Your task to perform on an android device: turn off notifications in google photos Image 0: 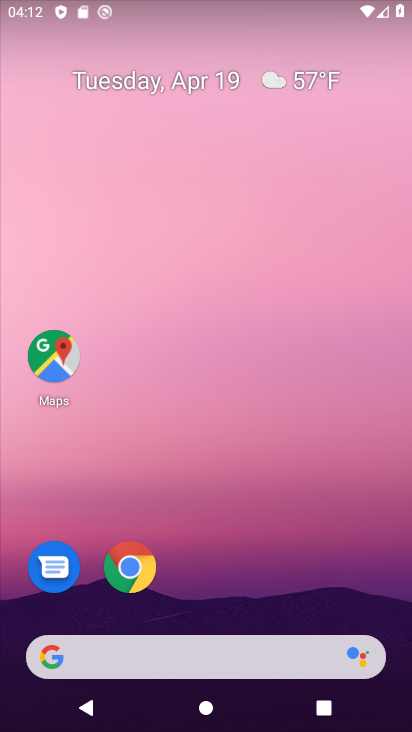
Step 0: drag from (369, 568) to (359, 199)
Your task to perform on an android device: turn off notifications in google photos Image 1: 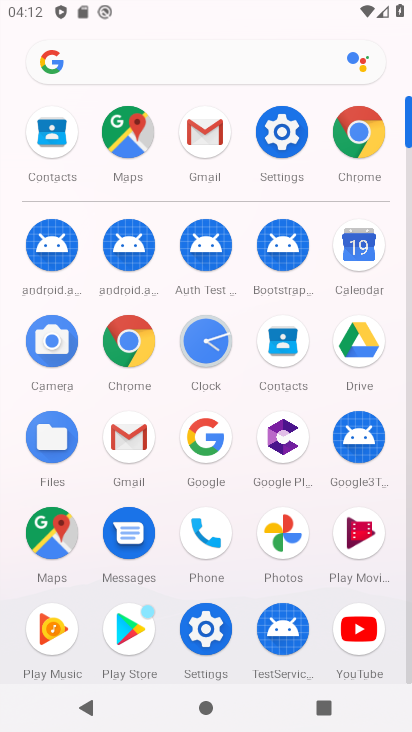
Step 1: click (286, 536)
Your task to perform on an android device: turn off notifications in google photos Image 2: 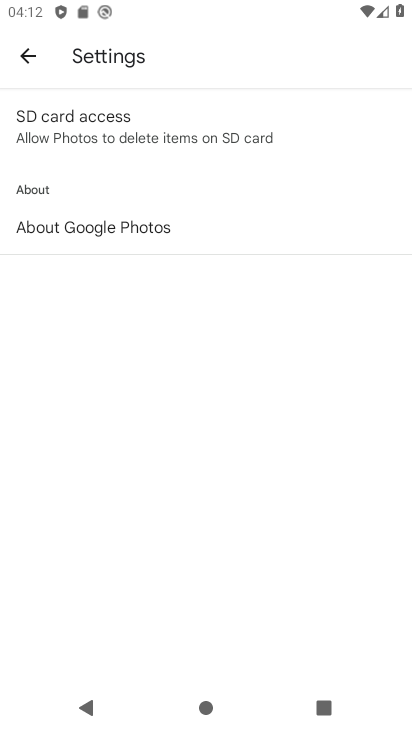
Step 2: click (24, 61)
Your task to perform on an android device: turn off notifications in google photos Image 3: 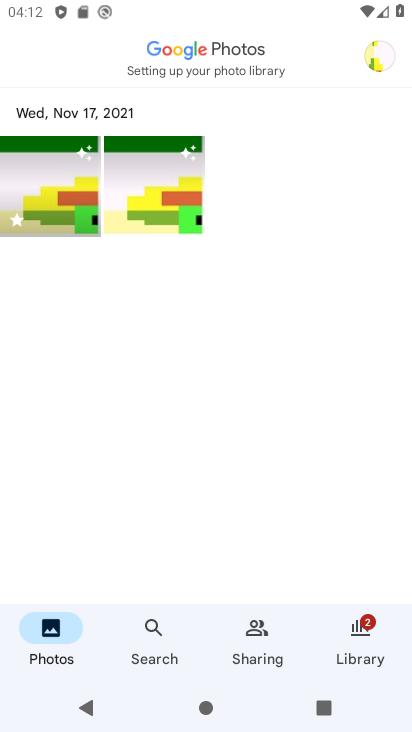
Step 3: click (375, 59)
Your task to perform on an android device: turn off notifications in google photos Image 4: 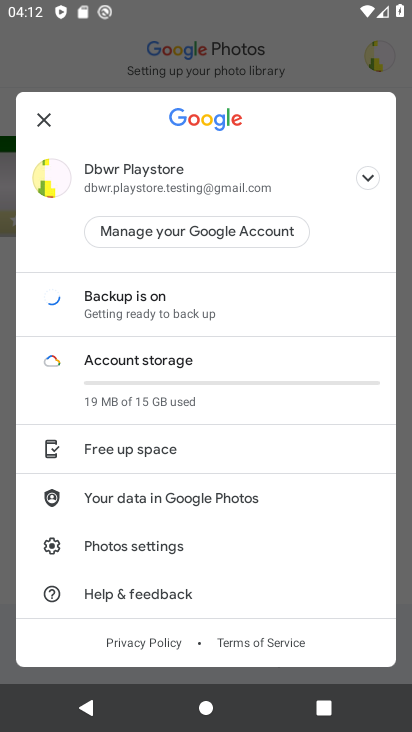
Step 4: drag from (328, 517) to (344, 352)
Your task to perform on an android device: turn off notifications in google photos Image 5: 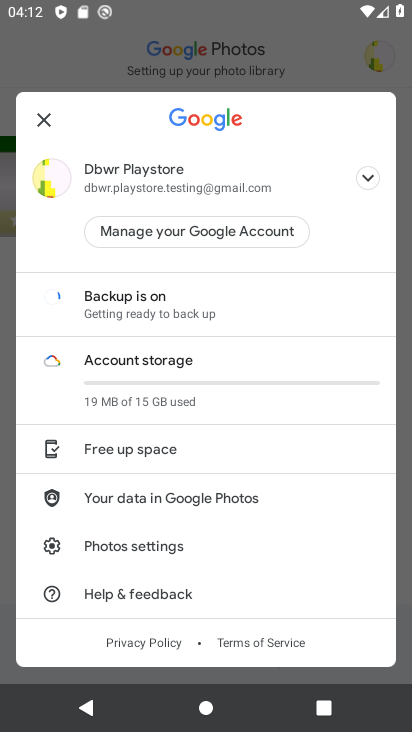
Step 5: click (186, 552)
Your task to perform on an android device: turn off notifications in google photos Image 6: 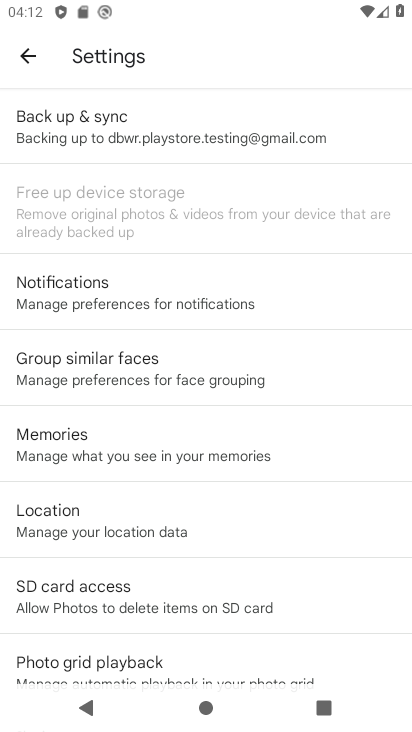
Step 6: drag from (337, 583) to (346, 446)
Your task to perform on an android device: turn off notifications in google photos Image 7: 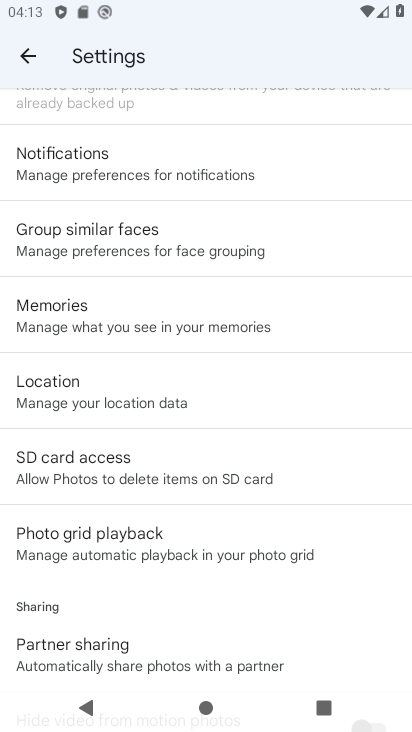
Step 7: drag from (341, 604) to (351, 436)
Your task to perform on an android device: turn off notifications in google photos Image 8: 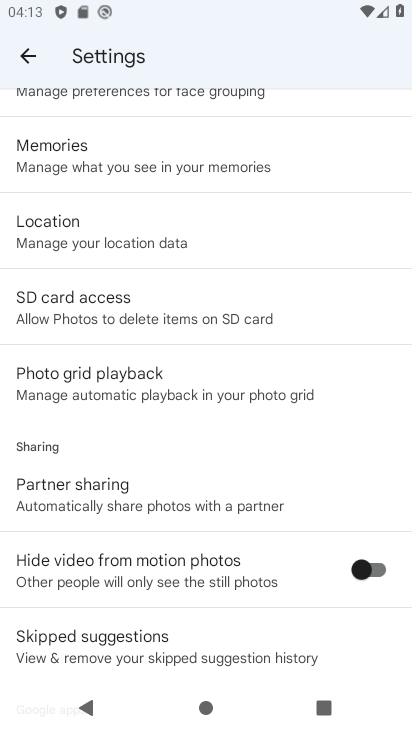
Step 8: drag from (320, 605) to (325, 490)
Your task to perform on an android device: turn off notifications in google photos Image 9: 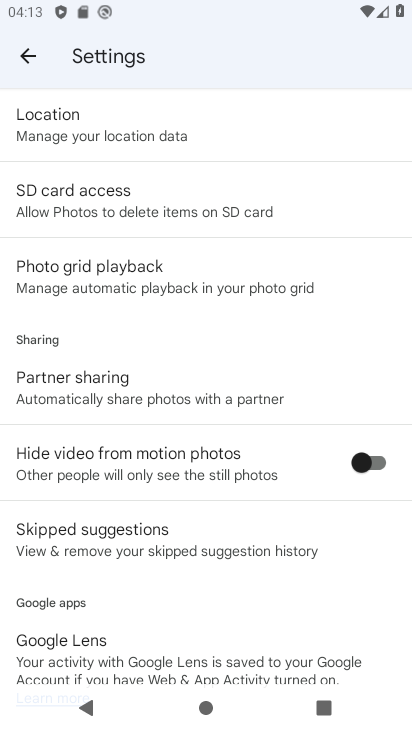
Step 9: drag from (323, 596) to (303, 471)
Your task to perform on an android device: turn off notifications in google photos Image 10: 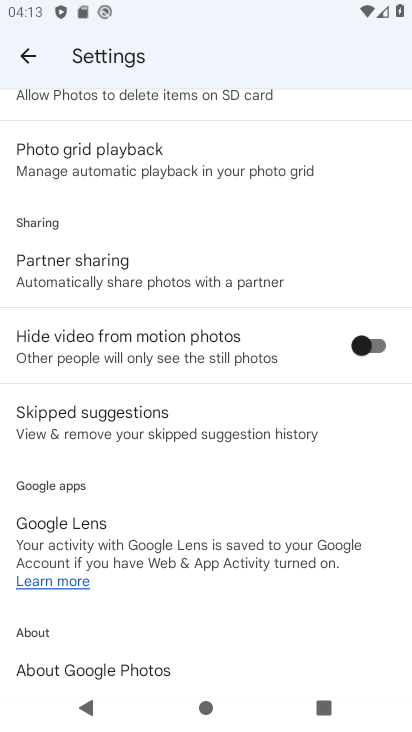
Step 10: drag from (316, 342) to (303, 483)
Your task to perform on an android device: turn off notifications in google photos Image 11: 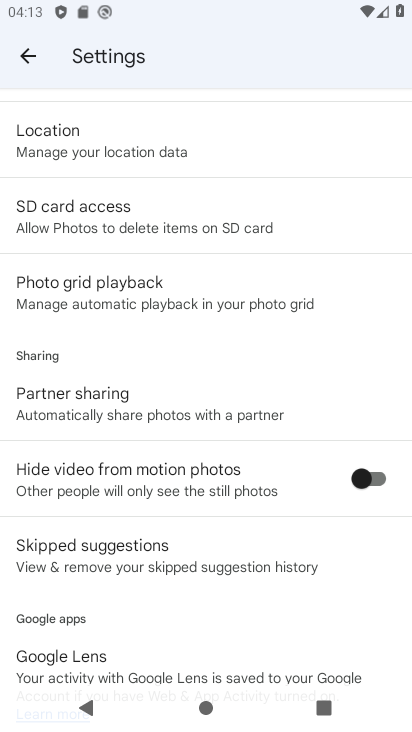
Step 11: drag from (310, 365) to (301, 499)
Your task to perform on an android device: turn off notifications in google photos Image 12: 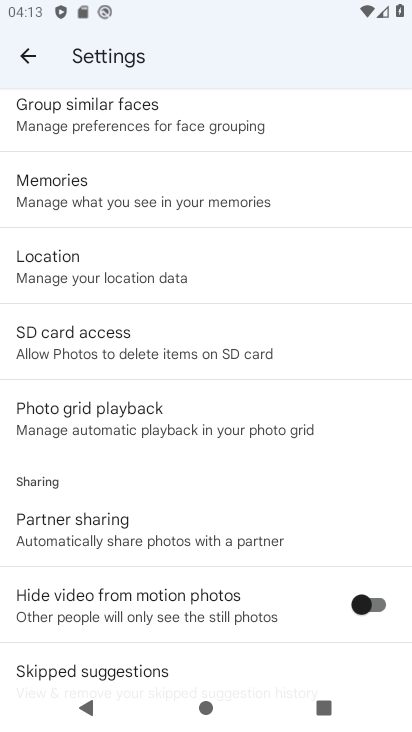
Step 12: drag from (318, 298) to (320, 520)
Your task to perform on an android device: turn off notifications in google photos Image 13: 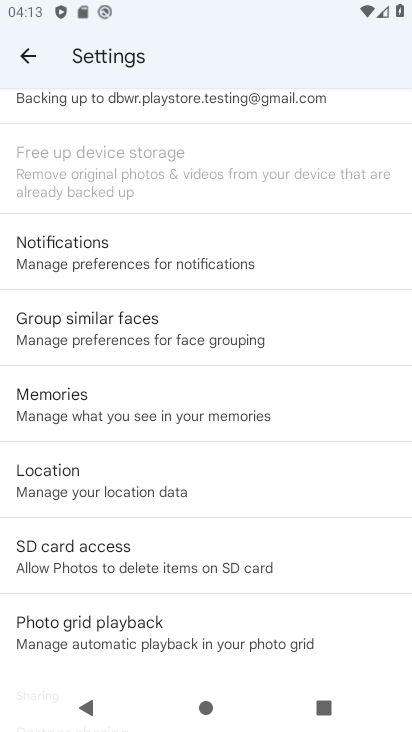
Step 13: click (175, 257)
Your task to perform on an android device: turn off notifications in google photos Image 14: 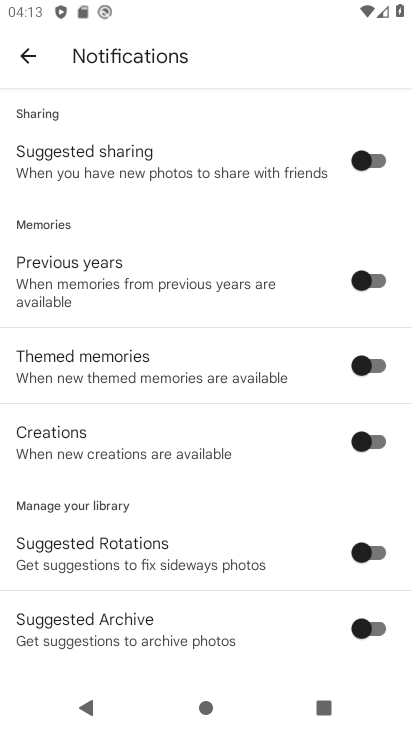
Step 14: drag from (291, 597) to (298, 409)
Your task to perform on an android device: turn off notifications in google photos Image 15: 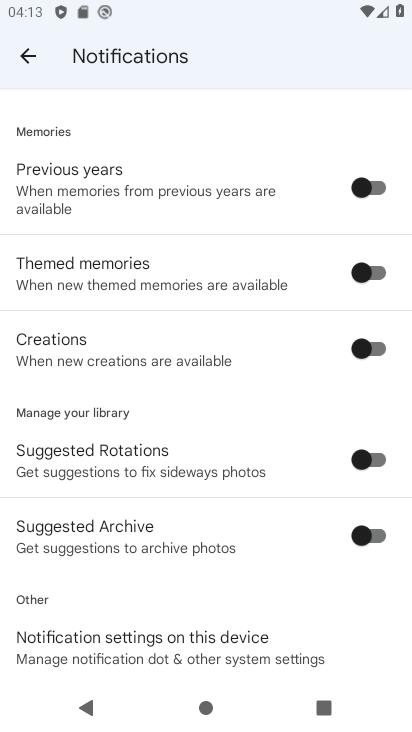
Step 15: click (228, 652)
Your task to perform on an android device: turn off notifications in google photos Image 16: 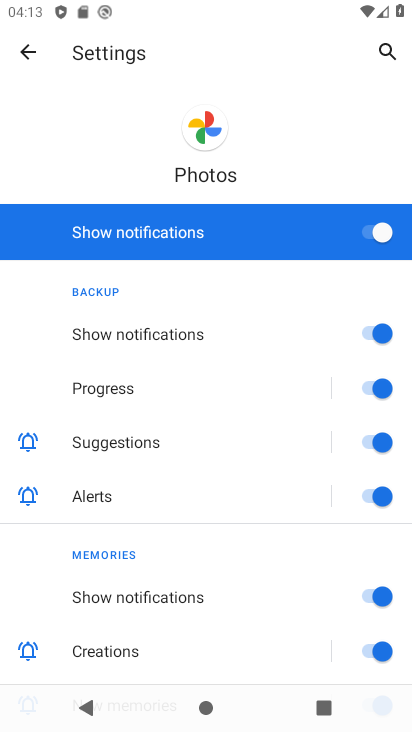
Step 16: click (379, 227)
Your task to perform on an android device: turn off notifications in google photos Image 17: 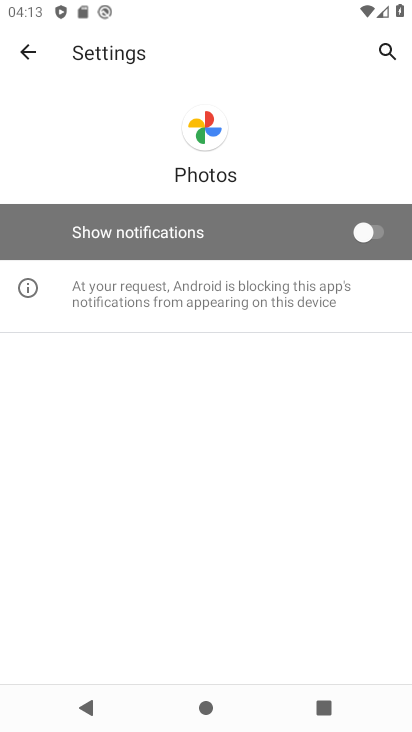
Step 17: task complete